Your task to perform on an android device: open chrome and create a bookmark for the current page Image 0: 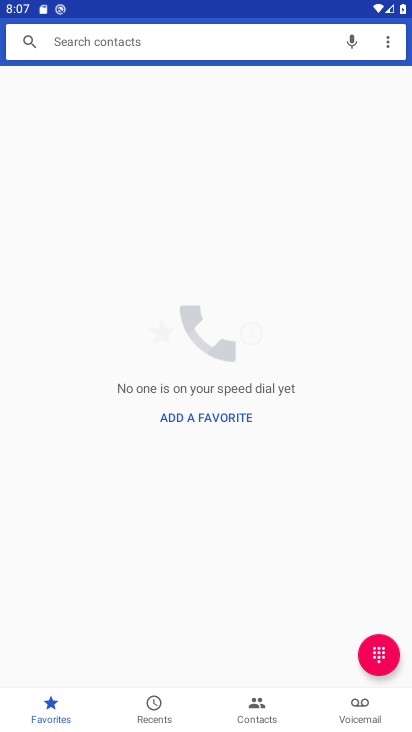
Step 0: press home button
Your task to perform on an android device: open chrome and create a bookmark for the current page Image 1: 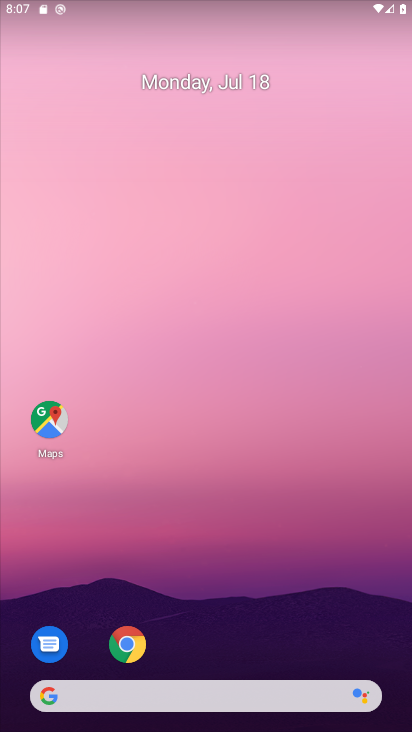
Step 1: click (132, 640)
Your task to perform on an android device: open chrome and create a bookmark for the current page Image 2: 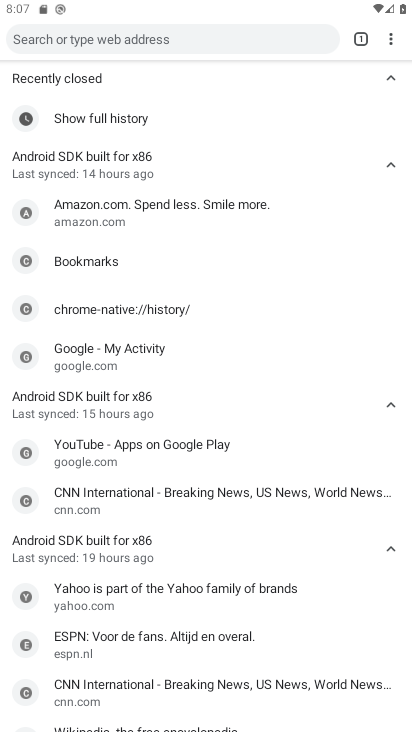
Step 2: click (357, 42)
Your task to perform on an android device: open chrome and create a bookmark for the current page Image 3: 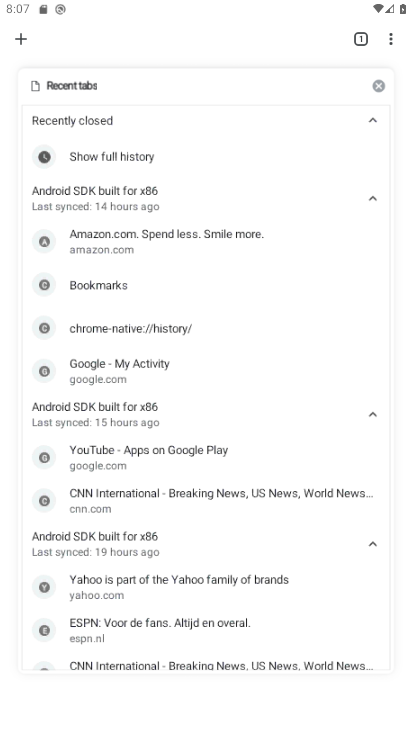
Step 3: click (14, 36)
Your task to perform on an android device: open chrome and create a bookmark for the current page Image 4: 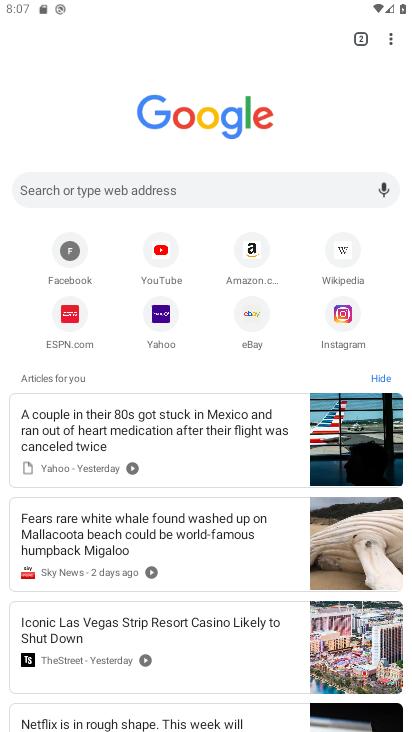
Step 4: click (178, 266)
Your task to perform on an android device: open chrome and create a bookmark for the current page Image 5: 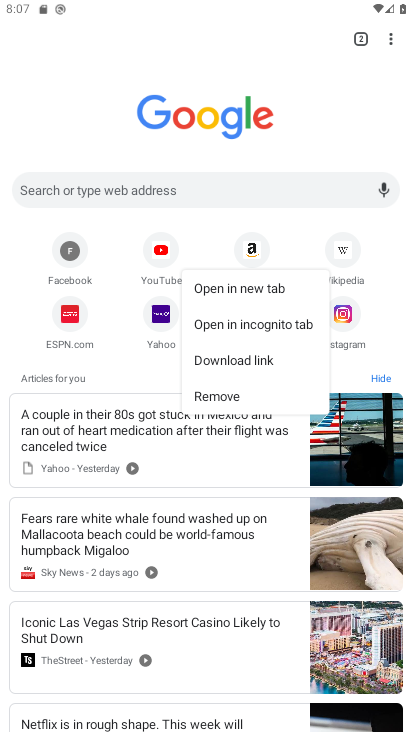
Step 5: click (159, 257)
Your task to perform on an android device: open chrome and create a bookmark for the current page Image 6: 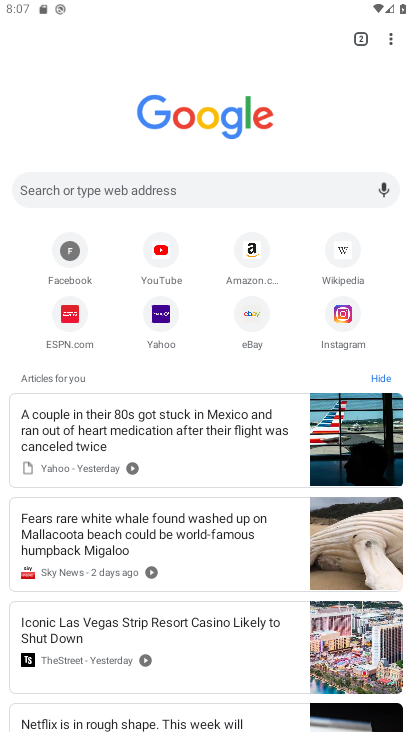
Step 6: click (159, 257)
Your task to perform on an android device: open chrome and create a bookmark for the current page Image 7: 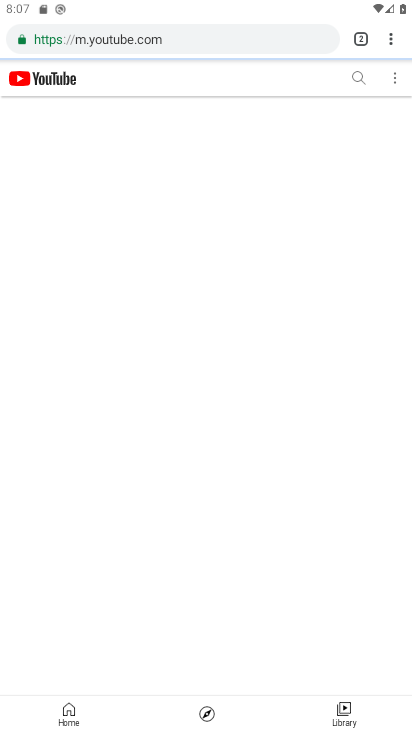
Step 7: click (394, 41)
Your task to perform on an android device: open chrome and create a bookmark for the current page Image 8: 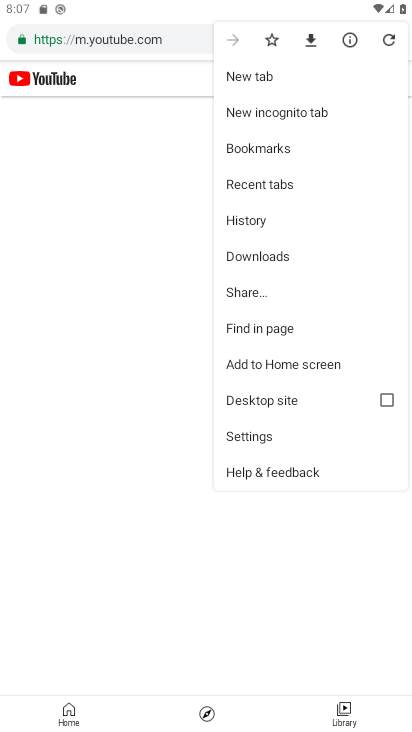
Step 8: click (267, 53)
Your task to perform on an android device: open chrome and create a bookmark for the current page Image 9: 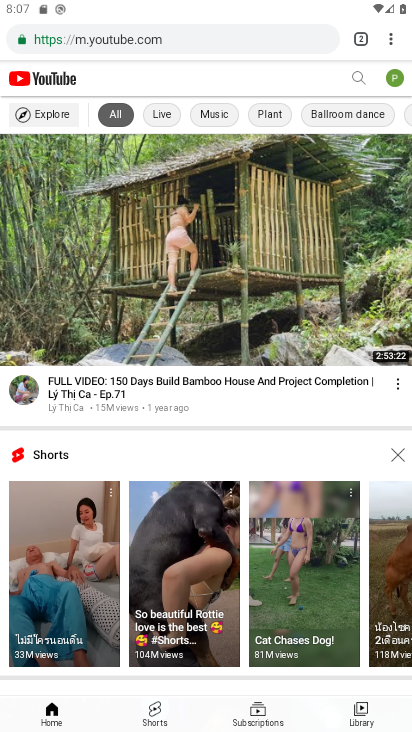
Step 9: task complete